Your task to perform on an android device: Open calendar and show me the third week of next month Image 0: 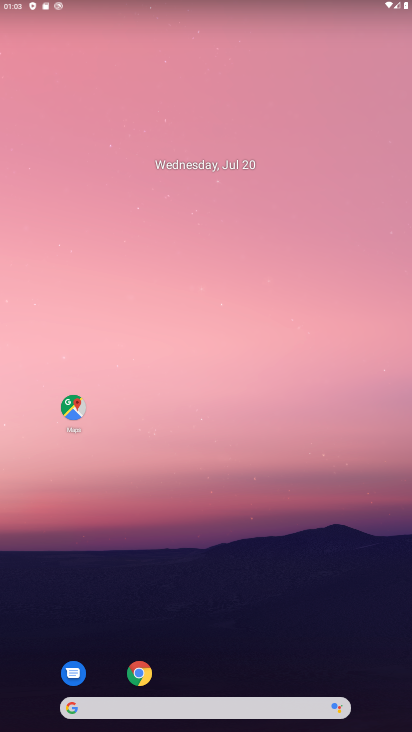
Step 0: click (225, 188)
Your task to perform on an android device: Open calendar and show me the third week of next month Image 1: 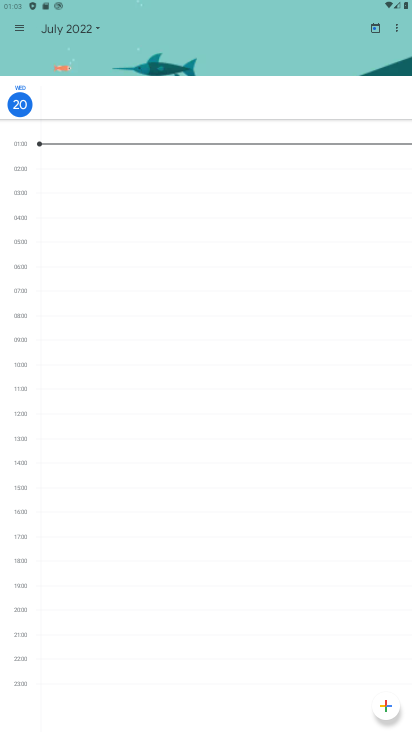
Step 1: click (100, 38)
Your task to perform on an android device: Open calendar and show me the third week of next month Image 2: 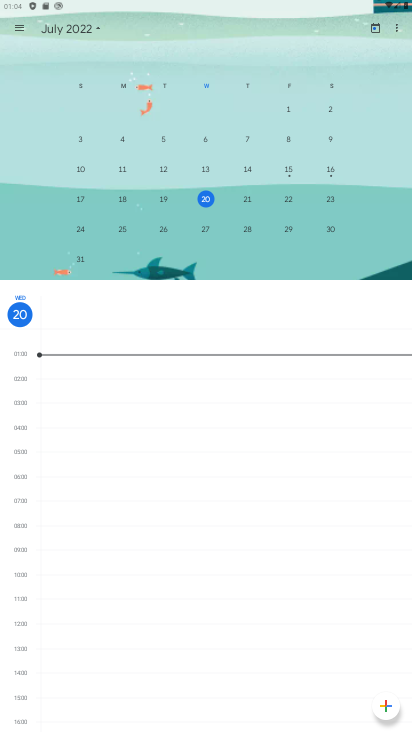
Step 2: click (100, 38)
Your task to perform on an android device: Open calendar and show me the third week of next month Image 3: 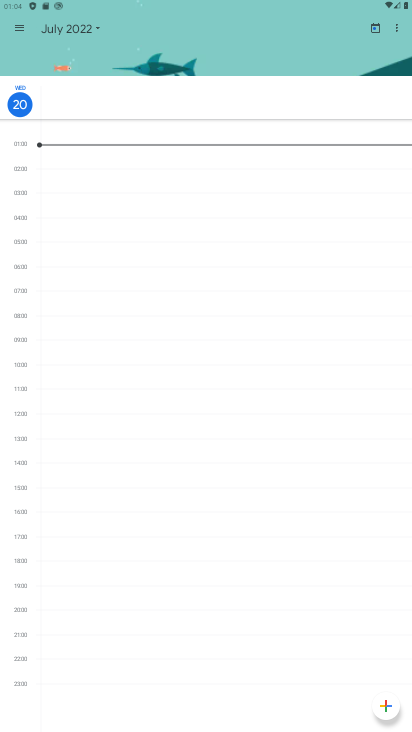
Step 3: click (100, 38)
Your task to perform on an android device: Open calendar and show me the third week of next month Image 4: 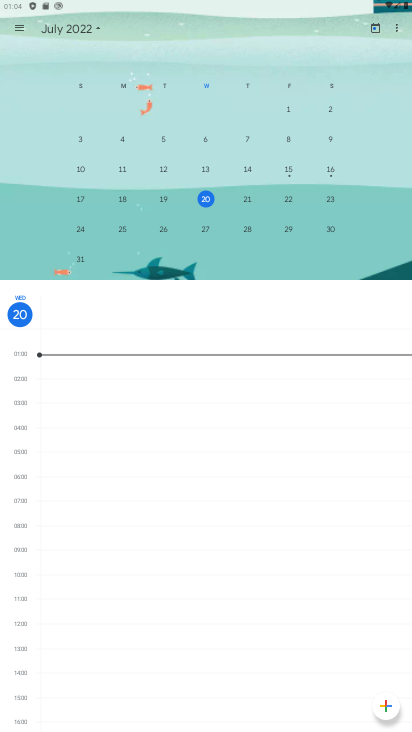
Step 4: drag from (398, 191) to (35, 226)
Your task to perform on an android device: Open calendar and show me the third week of next month Image 5: 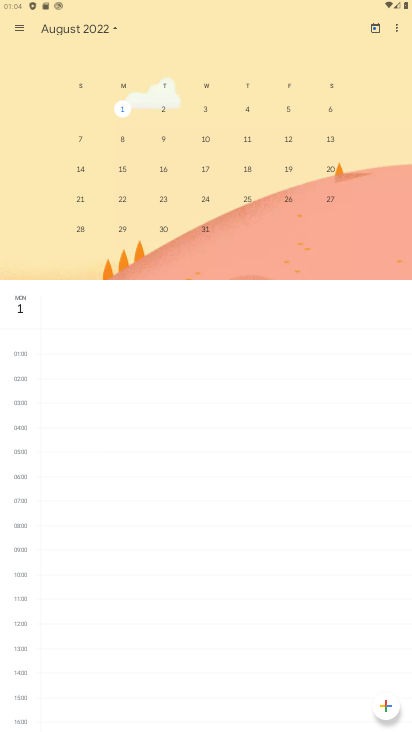
Step 5: click (124, 170)
Your task to perform on an android device: Open calendar and show me the third week of next month Image 6: 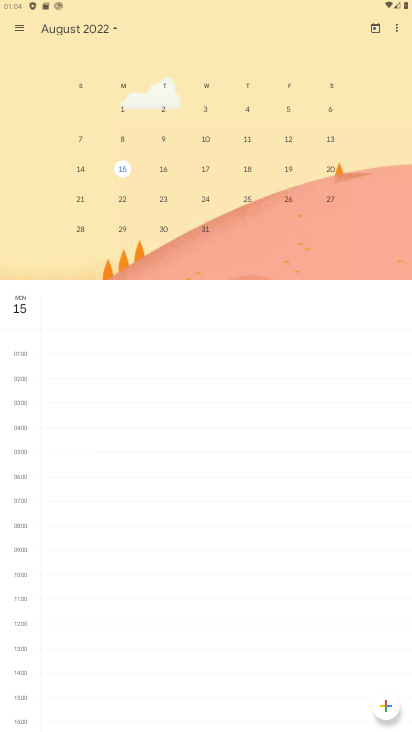
Step 6: task complete